Your task to perform on an android device: turn pop-ups off in chrome Image 0: 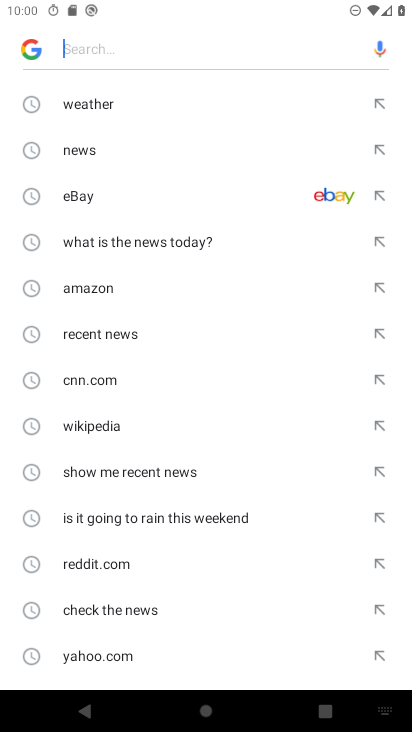
Step 0: press back button
Your task to perform on an android device: turn pop-ups off in chrome Image 1: 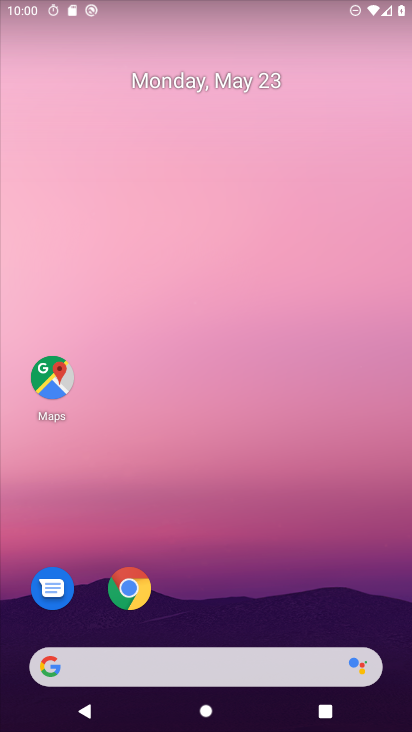
Step 1: click (126, 574)
Your task to perform on an android device: turn pop-ups off in chrome Image 2: 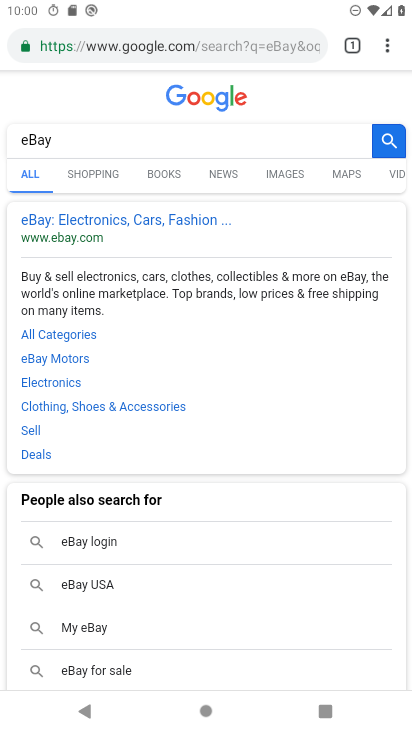
Step 2: click (383, 47)
Your task to perform on an android device: turn pop-ups off in chrome Image 3: 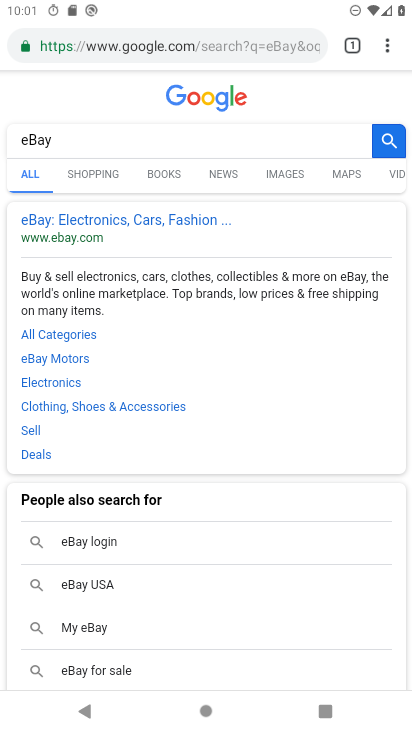
Step 3: click (383, 44)
Your task to perform on an android device: turn pop-ups off in chrome Image 4: 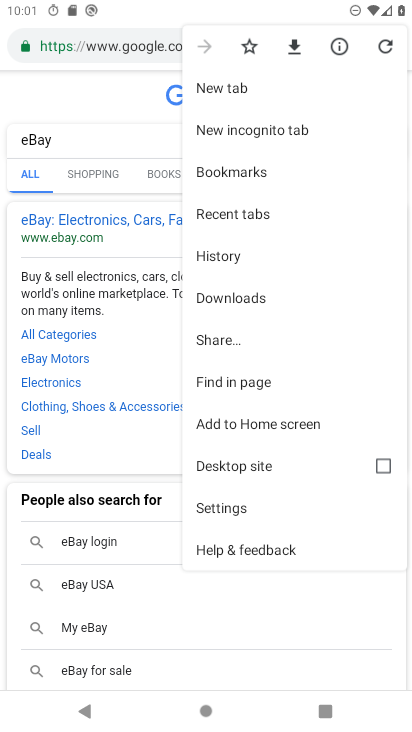
Step 4: click (224, 506)
Your task to perform on an android device: turn pop-ups off in chrome Image 5: 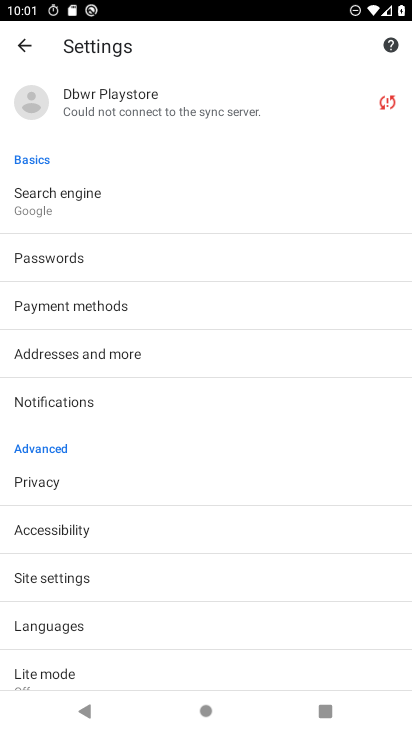
Step 5: click (63, 572)
Your task to perform on an android device: turn pop-ups off in chrome Image 6: 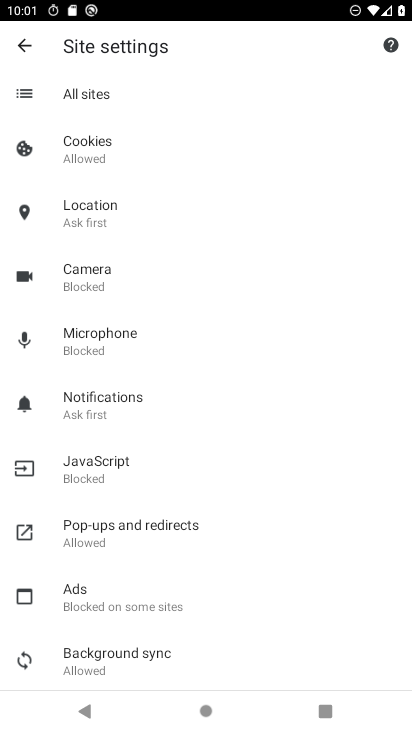
Step 6: click (96, 530)
Your task to perform on an android device: turn pop-ups off in chrome Image 7: 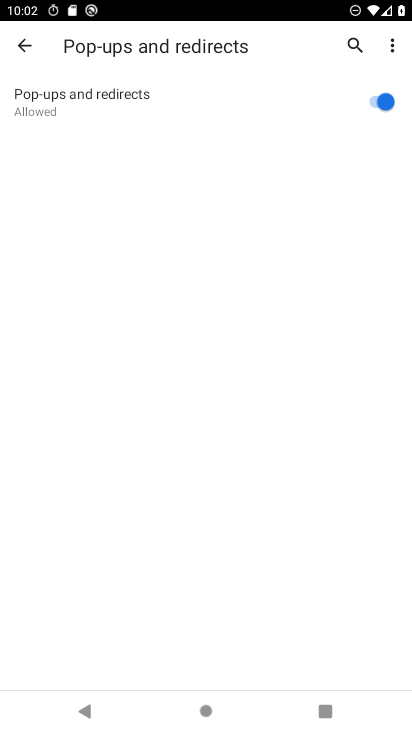
Step 7: task complete